Your task to perform on an android device: Turn on the flashlight Image 0: 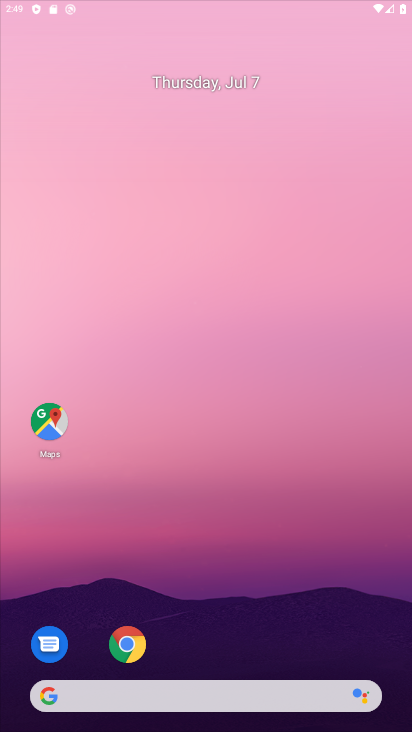
Step 0: drag from (215, 594) to (185, 387)
Your task to perform on an android device: Turn on the flashlight Image 1: 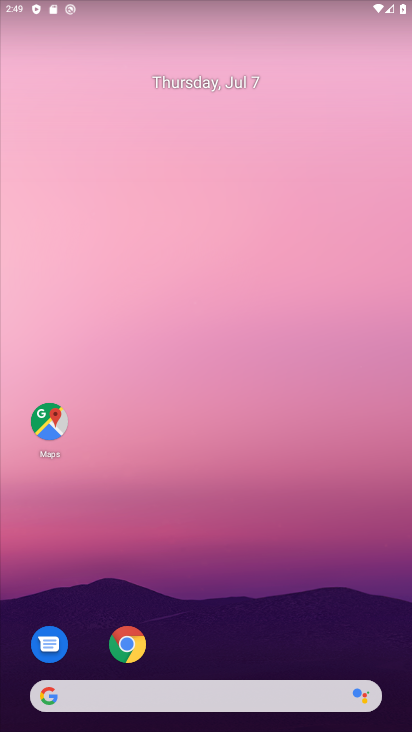
Step 1: task complete